Your task to perform on an android device: search for starred emails in the gmail app Image 0: 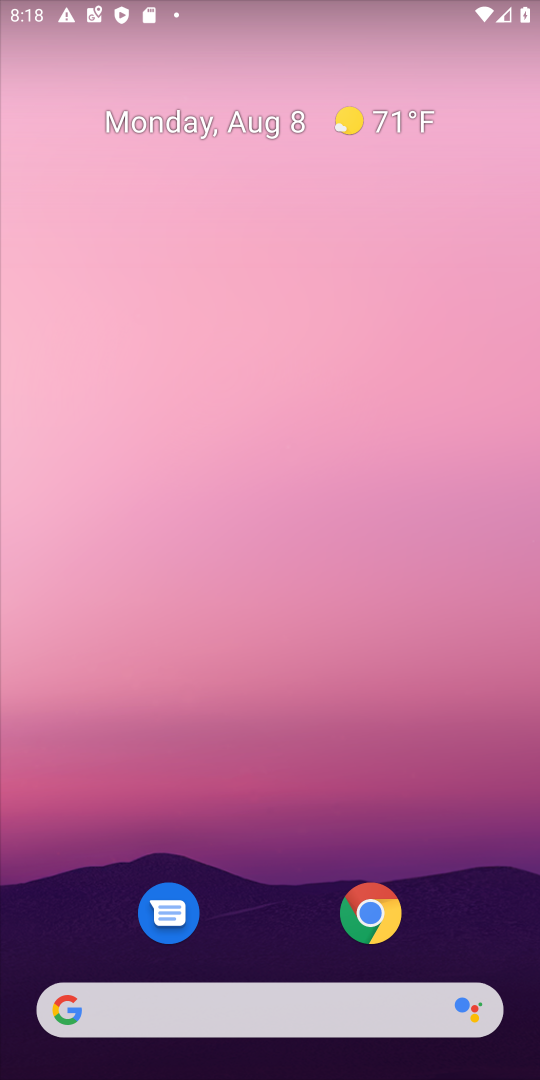
Step 0: drag from (232, 1015) to (343, 262)
Your task to perform on an android device: search for starred emails in the gmail app Image 1: 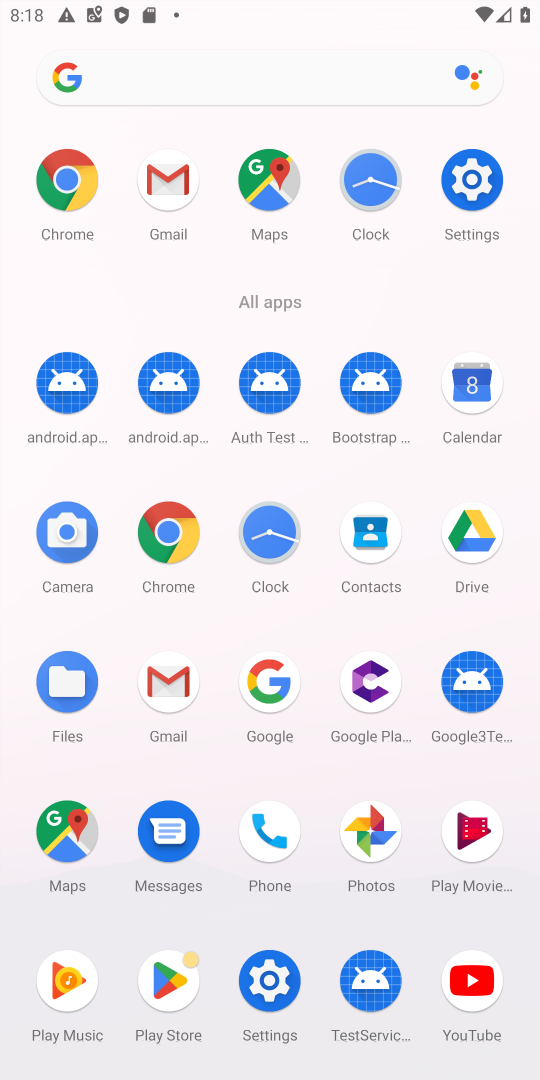
Step 1: click (167, 179)
Your task to perform on an android device: search for starred emails in the gmail app Image 2: 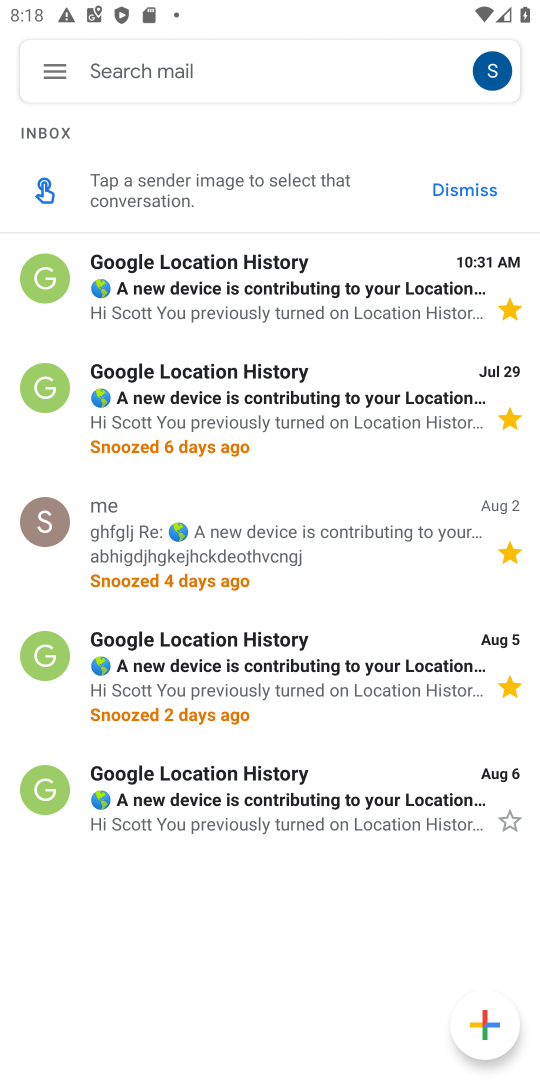
Step 2: task complete